Your task to perform on an android device: set default search engine in the chrome app Image 0: 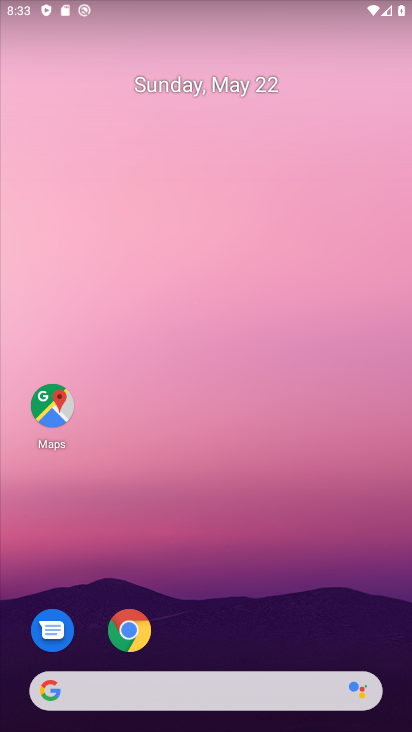
Step 0: click (125, 636)
Your task to perform on an android device: set default search engine in the chrome app Image 1: 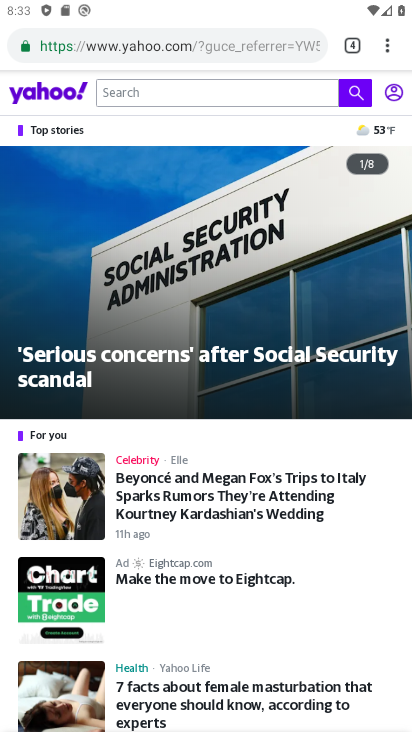
Step 1: click (391, 52)
Your task to perform on an android device: set default search engine in the chrome app Image 2: 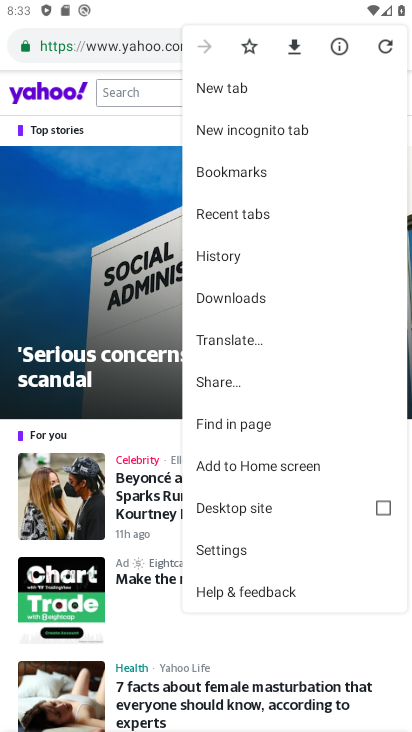
Step 2: click (247, 541)
Your task to perform on an android device: set default search engine in the chrome app Image 3: 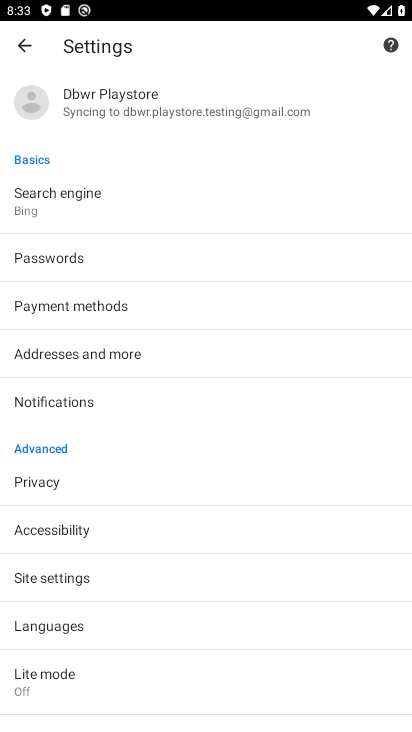
Step 3: click (107, 183)
Your task to perform on an android device: set default search engine in the chrome app Image 4: 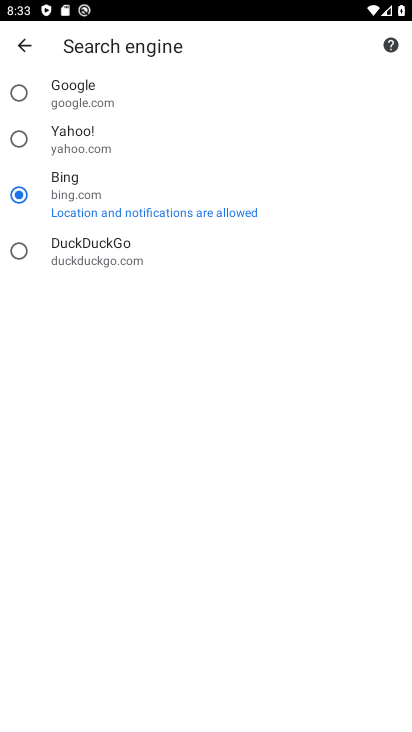
Step 4: click (74, 128)
Your task to perform on an android device: set default search engine in the chrome app Image 5: 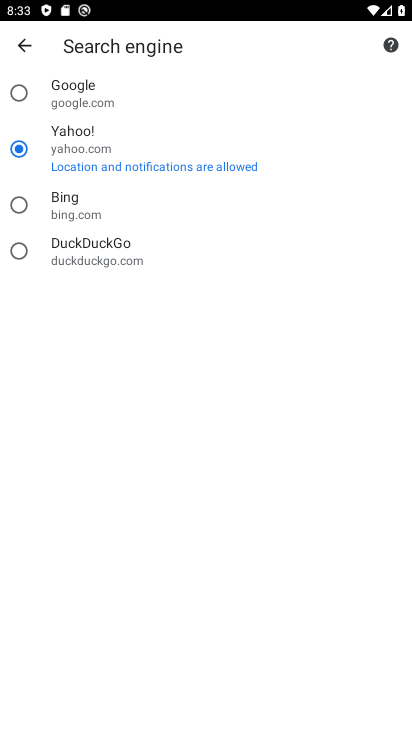
Step 5: task complete